Your task to perform on an android device: Open the calendar app, open the side menu, and click the "Day" option Image 0: 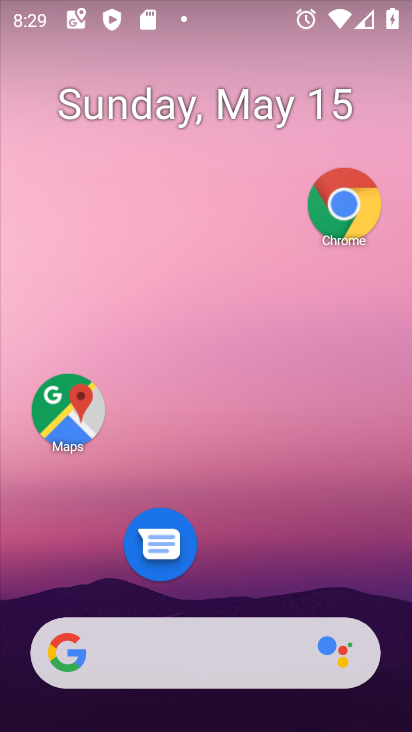
Step 0: drag from (262, 550) to (245, 39)
Your task to perform on an android device: Open the calendar app, open the side menu, and click the "Day" option Image 1: 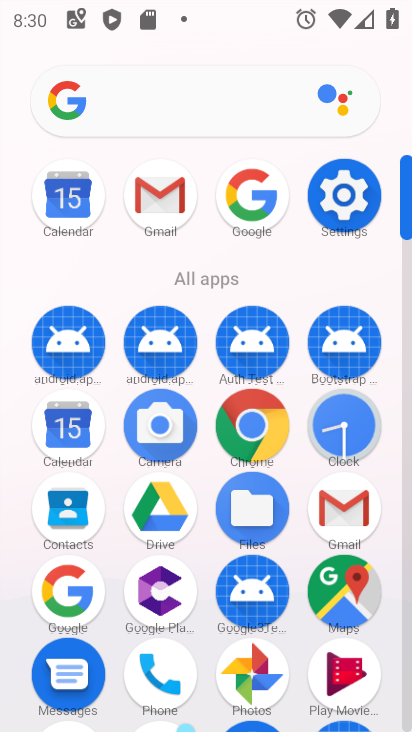
Step 1: click (74, 439)
Your task to perform on an android device: Open the calendar app, open the side menu, and click the "Day" option Image 2: 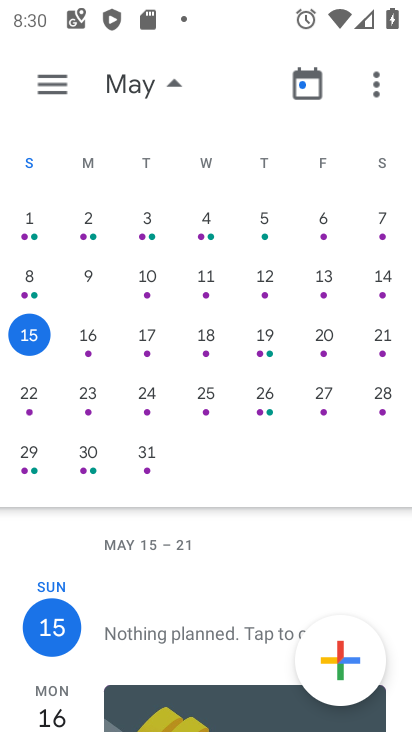
Step 2: click (42, 89)
Your task to perform on an android device: Open the calendar app, open the side menu, and click the "Day" option Image 3: 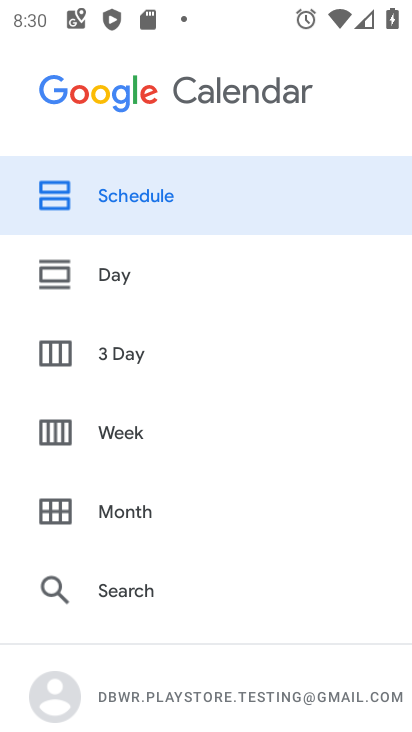
Step 3: click (122, 267)
Your task to perform on an android device: Open the calendar app, open the side menu, and click the "Day" option Image 4: 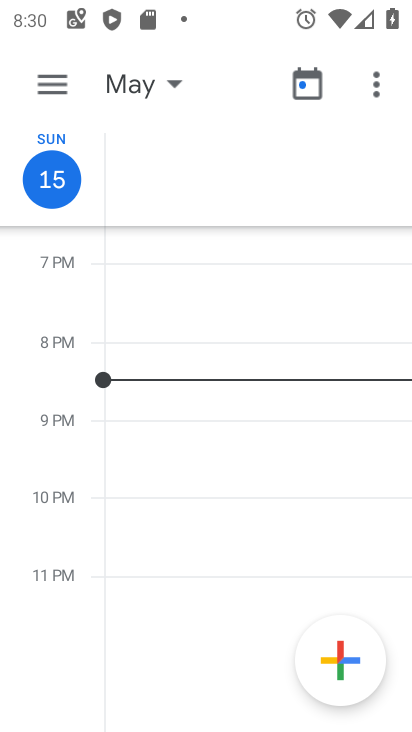
Step 4: task complete